Your task to perform on an android device: turn on bluetooth scan Image 0: 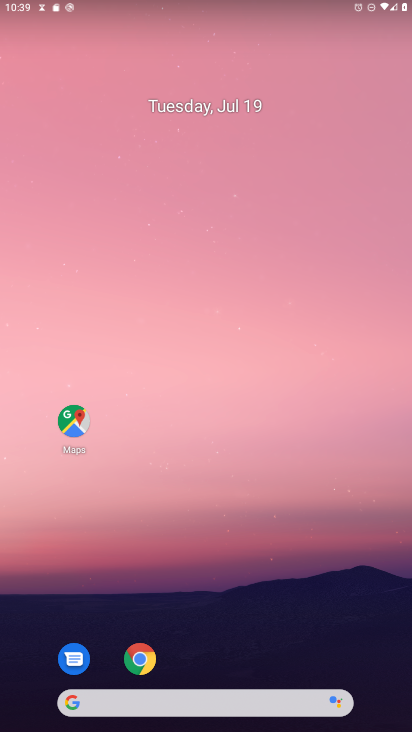
Step 0: drag from (232, 659) to (234, 407)
Your task to perform on an android device: turn on bluetooth scan Image 1: 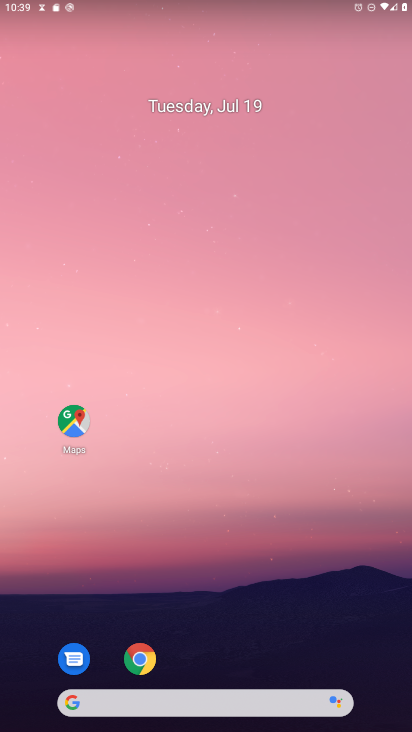
Step 1: drag from (216, 632) to (242, 201)
Your task to perform on an android device: turn on bluetooth scan Image 2: 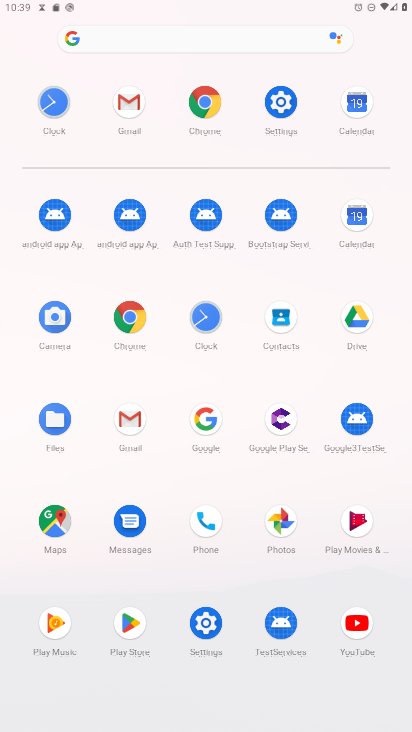
Step 2: click (285, 99)
Your task to perform on an android device: turn on bluetooth scan Image 3: 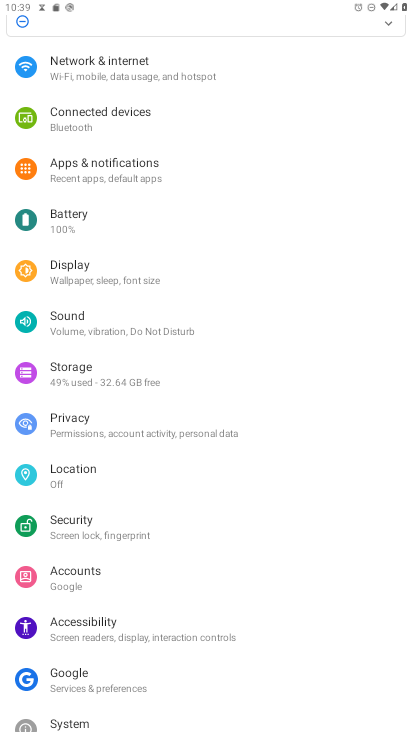
Step 3: drag from (247, 71) to (251, 478)
Your task to perform on an android device: turn on bluetooth scan Image 4: 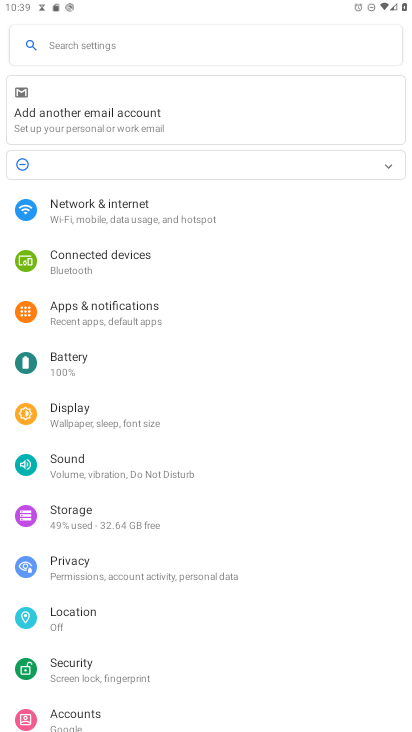
Step 4: click (123, 41)
Your task to perform on an android device: turn on bluetooth scan Image 5: 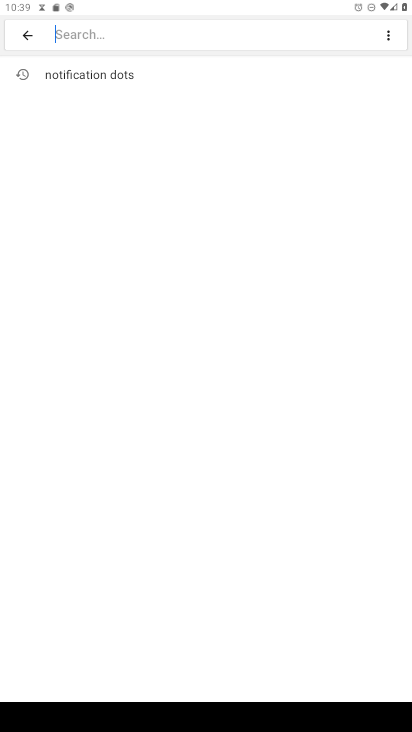
Step 5: type "bluetooth "
Your task to perform on an android device: turn on bluetooth scan Image 6: 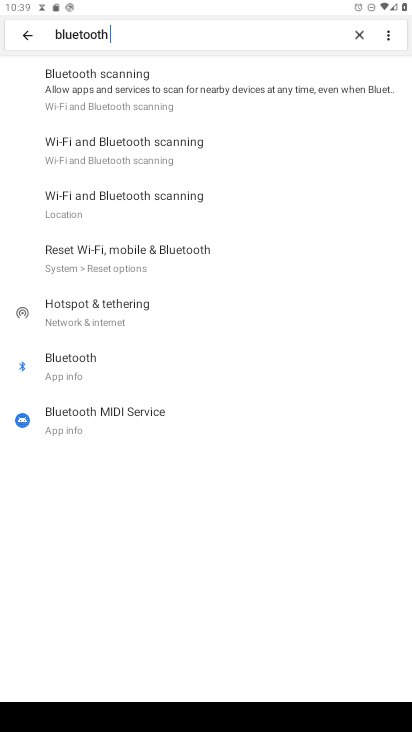
Step 6: click (165, 96)
Your task to perform on an android device: turn on bluetooth scan Image 7: 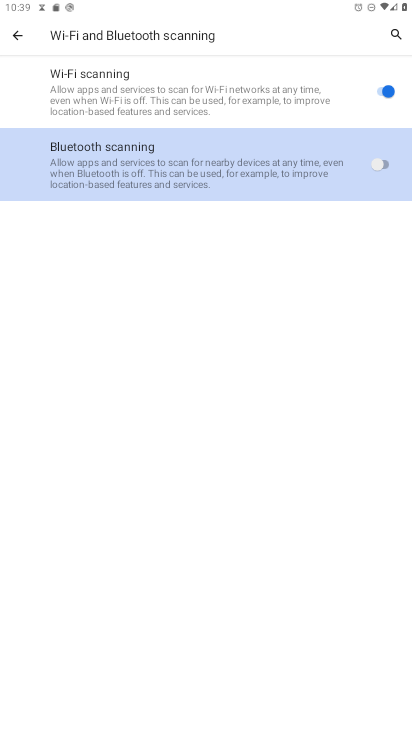
Step 7: click (373, 160)
Your task to perform on an android device: turn on bluetooth scan Image 8: 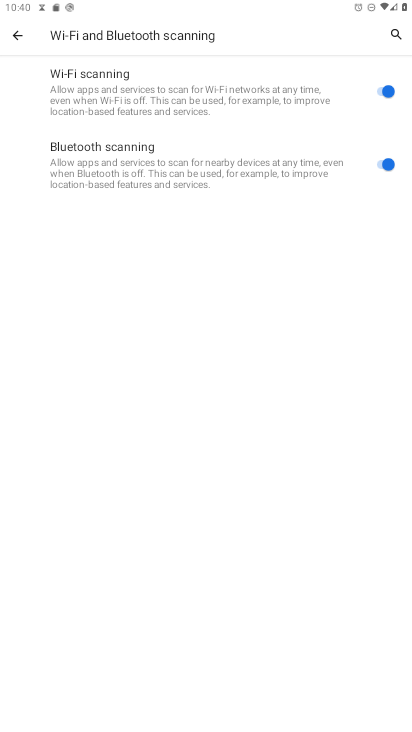
Step 8: task complete